Your task to perform on an android device: show emergency info Image 0: 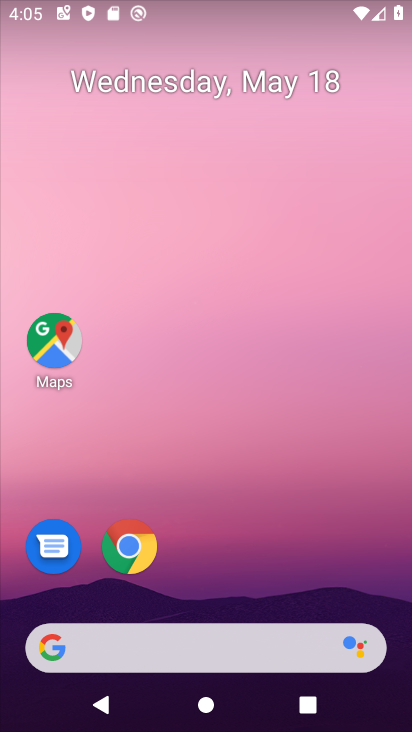
Step 0: drag from (189, 608) to (303, 10)
Your task to perform on an android device: show emergency info Image 1: 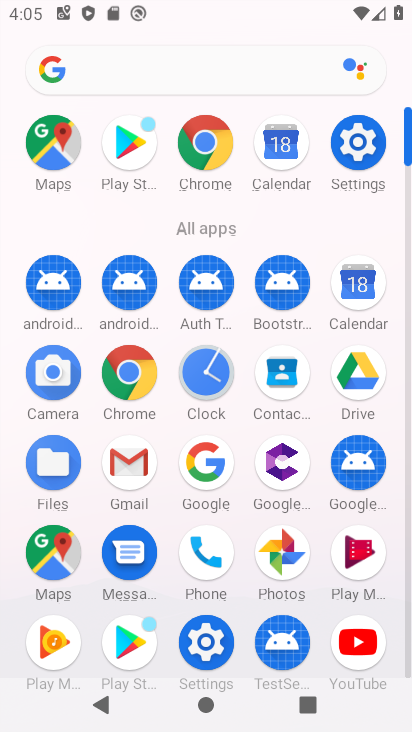
Step 1: click (361, 161)
Your task to perform on an android device: show emergency info Image 2: 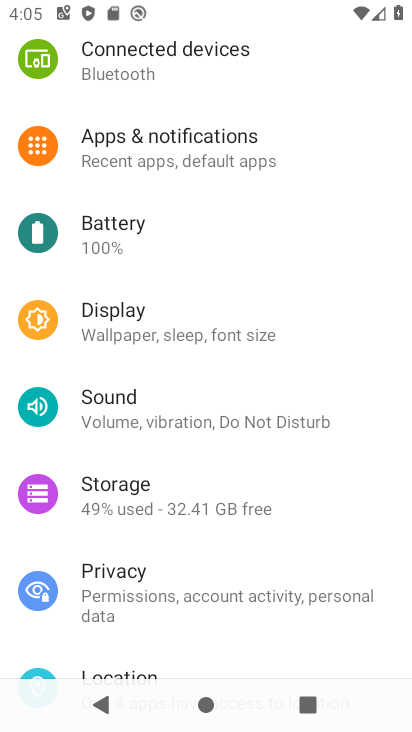
Step 2: drag from (178, 539) to (277, 29)
Your task to perform on an android device: show emergency info Image 3: 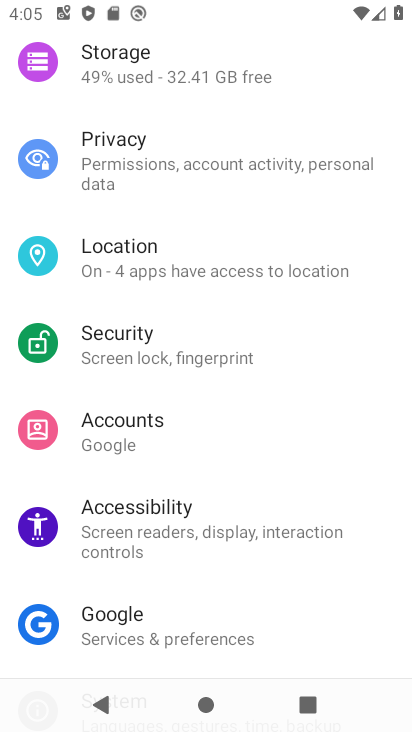
Step 3: drag from (144, 541) to (207, 174)
Your task to perform on an android device: show emergency info Image 4: 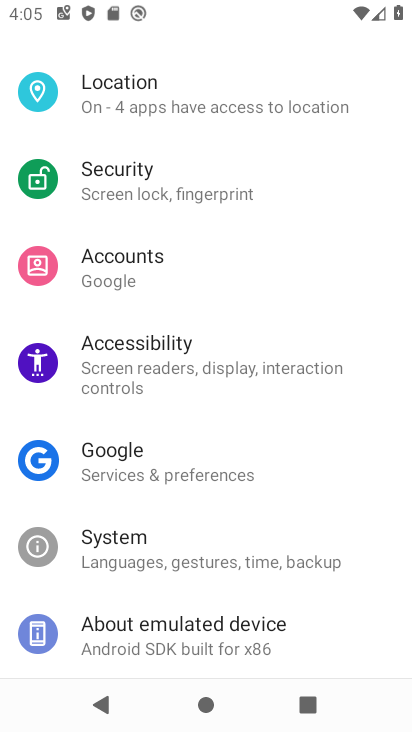
Step 4: click (162, 637)
Your task to perform on an android device: show emergency info Image 5: 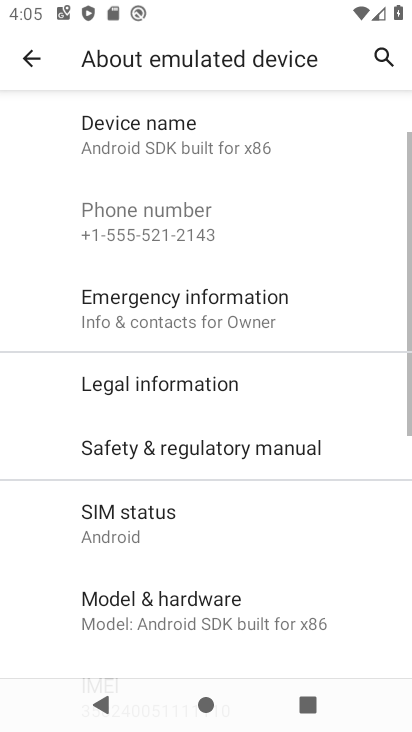
Step 5: click (151, 314)
Your task to perform on an android device: show emergency info Image 6: 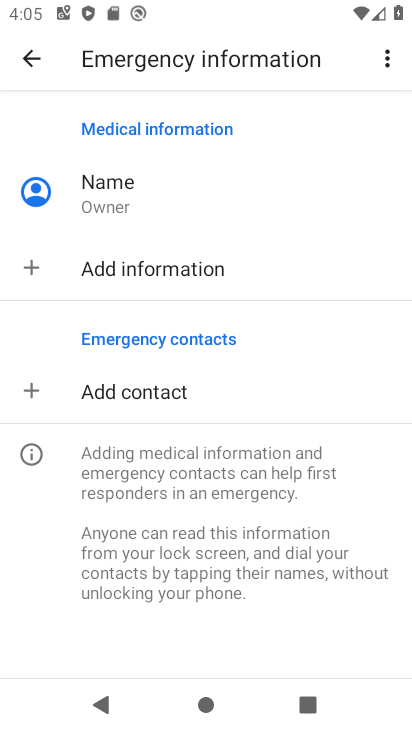
Step 6: task complete